Your task to perform on an android device: turn smart compose on in the gmail app Image 0: 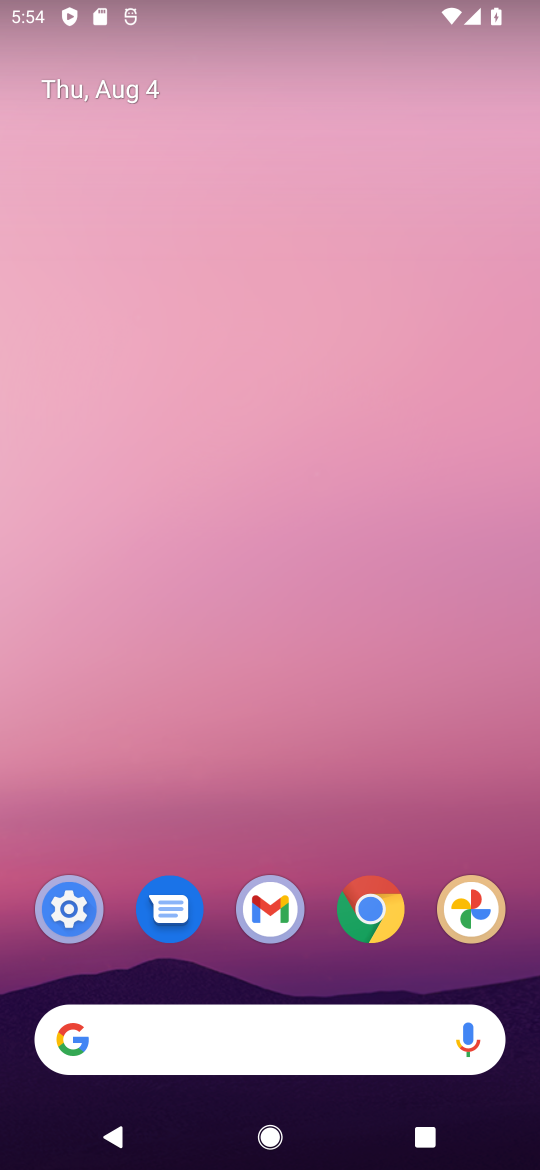
Step 0: drag from (330, 949) to (468, 95)
Your task to perform on an android device: turn smart compose on in the gmail app Image 1: 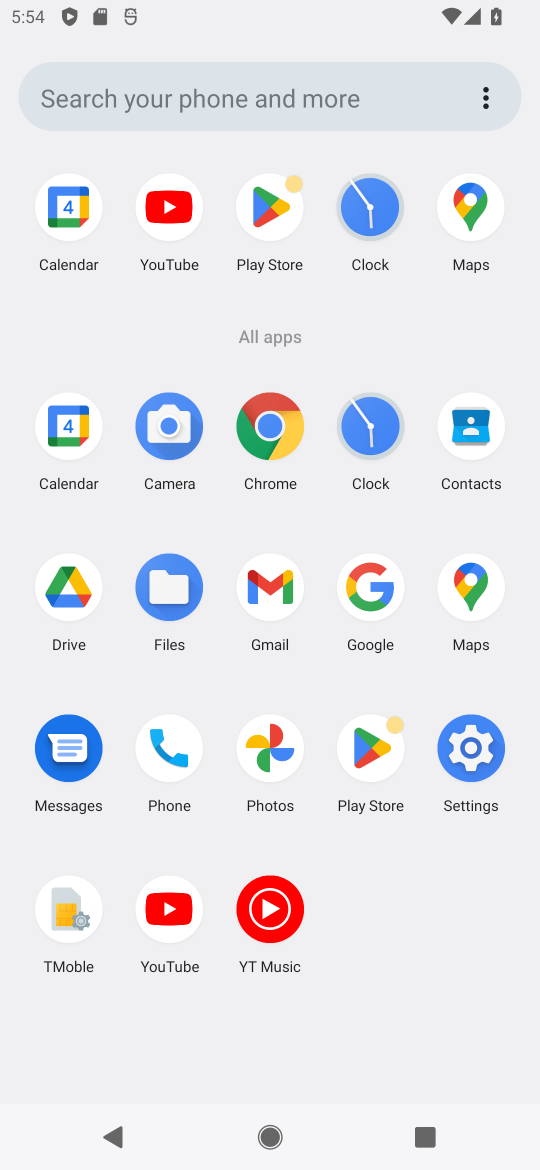
Step 1: click (263, 591)
Your task to perform on an android device: turn smart compose on in the gmail app Image 2: 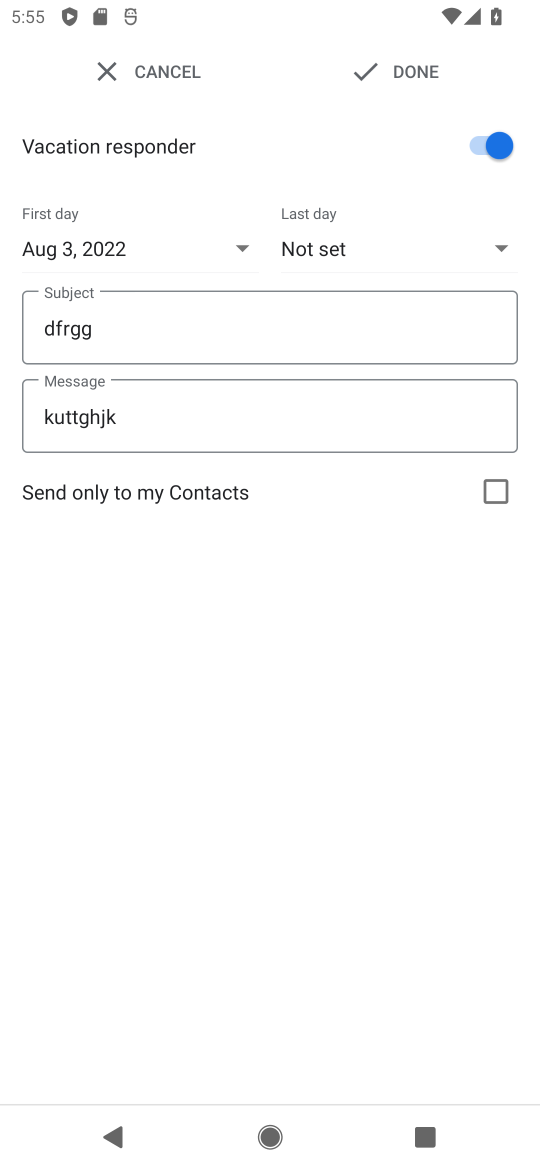
Step 2: click (110, 76)
Your task to perform on an android device: turn smart compose on in the gmail app Image 3: 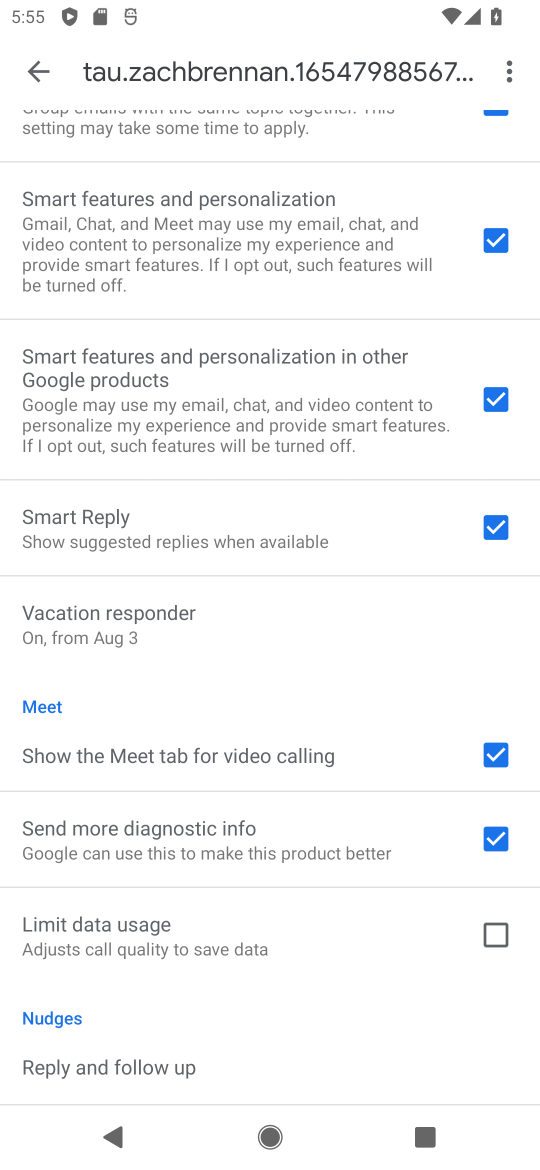
Step 3: task complete